Your task to perform on an android device: find which apps use the phone's location Image 0: 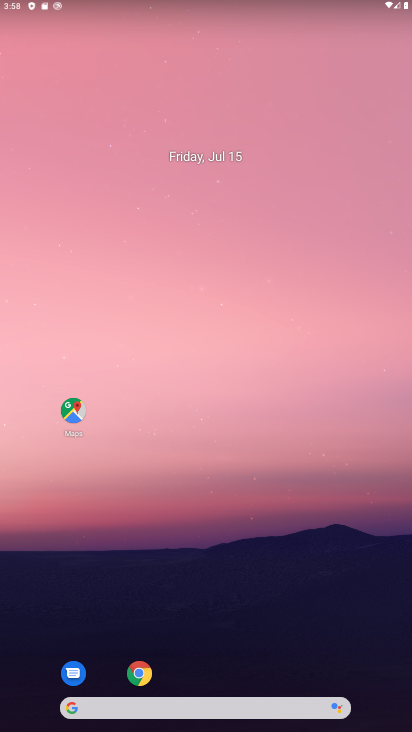
Step 0: drag from (236, 584) to (217, 136)
Your task to perform on an android device: find which apps use the phone's location Image 1: 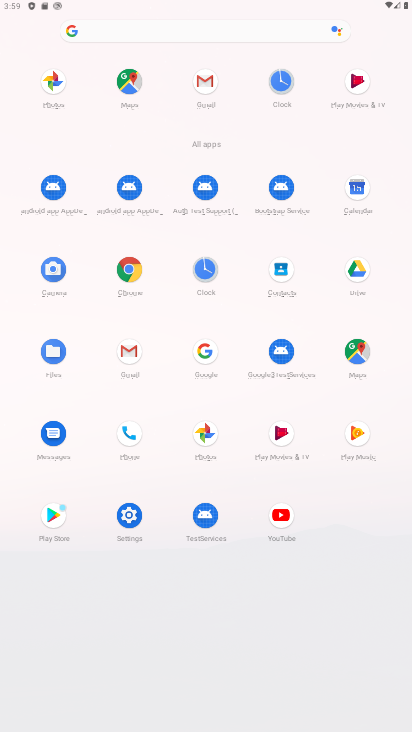
Step 1: click (133, 510)
Your task to perform on an android device: find which apps use the phone's location Image 2: 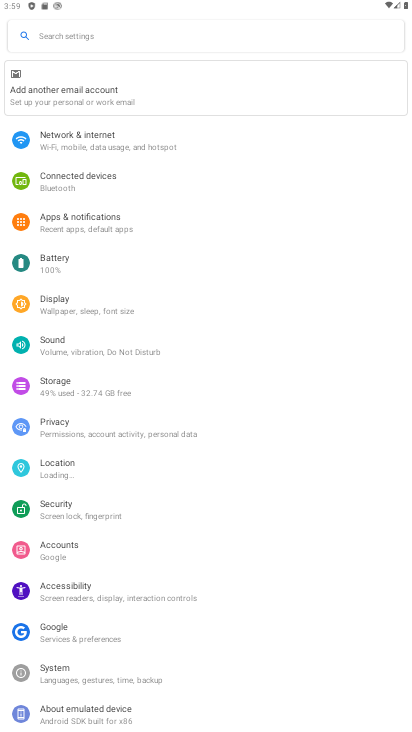
Step 2: click (76, 470)
Your task to perform on an android device: find which apps use the phone's location Image 3: 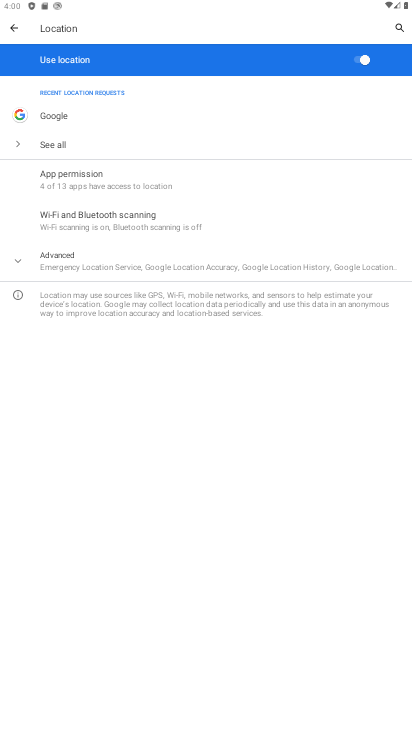
Step 3: task complete